Your task to perform on an android device: change the clock display to digital Image 0: 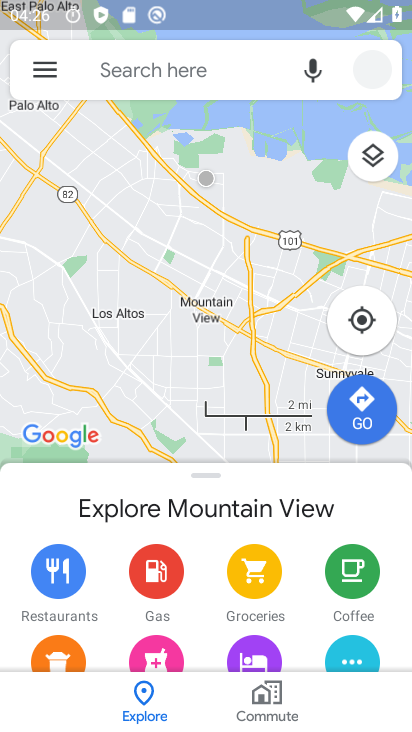
Step 0: press home button
Your task to perform on an android device: change the clock display to digital Image 1: 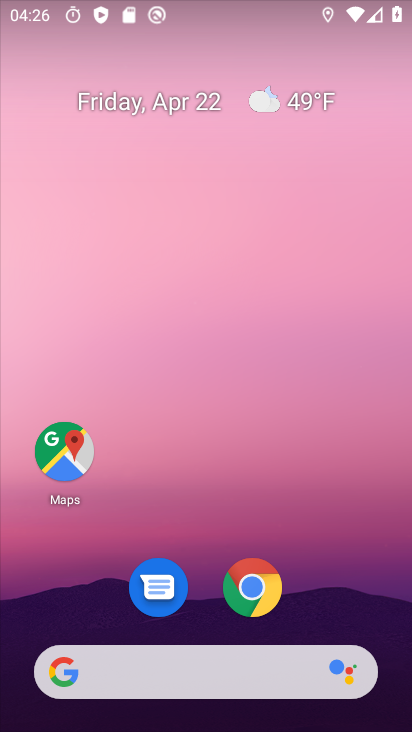
Step 1: drag from (344, 556) to (360, 35)
Your task to perform on an android device: change the clock display to digital Image 2: 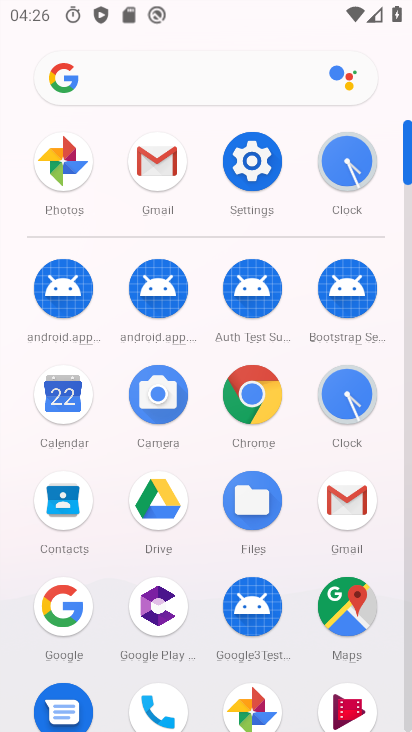
Step 2: click (343, 163)
Your task to perform on an android device: change the clock display to digital Image 3: 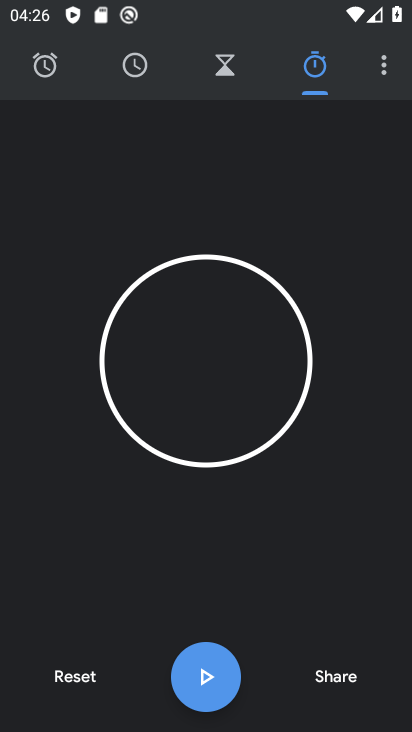
Step 3: click (381, 71)
Your task to perform on an android device: change the clock display to digital Image 4: 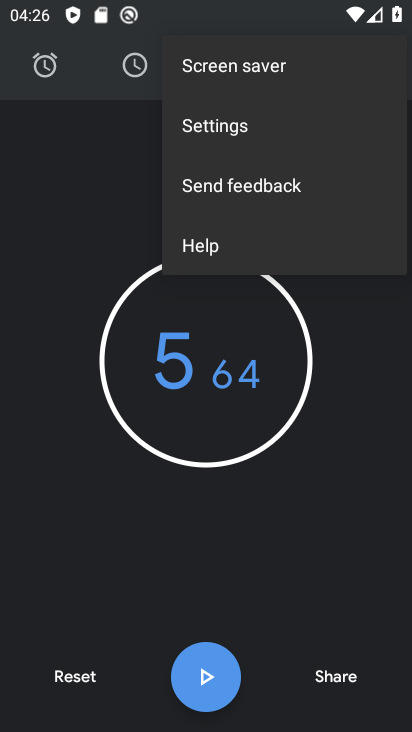
Step 4: click (229, 134)
Your task to perform on an android device: change the clock display to digital Image 5: 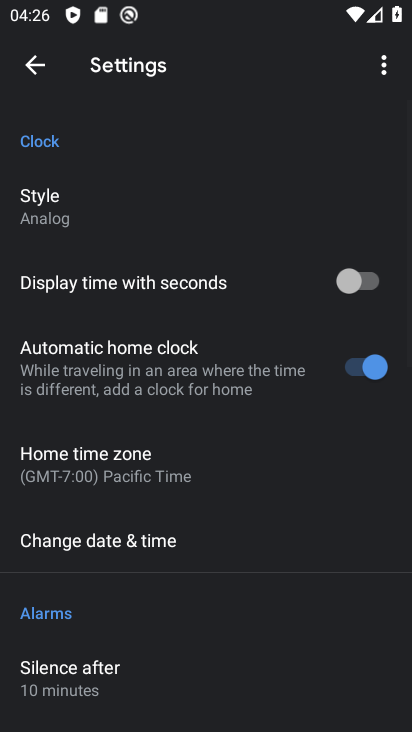
Step 5: click (53, 217)
Your task to perform on an android device: change the clock display to digital Image 6: 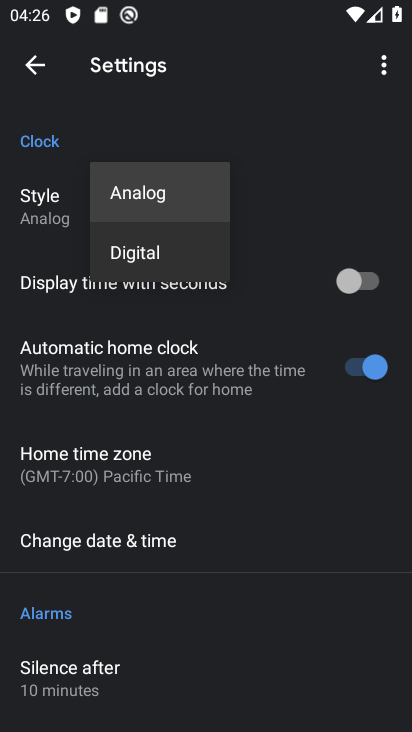
Step 6: click (113, 254)
Your task to perform on an android device: change the clock display to digital Image 7: 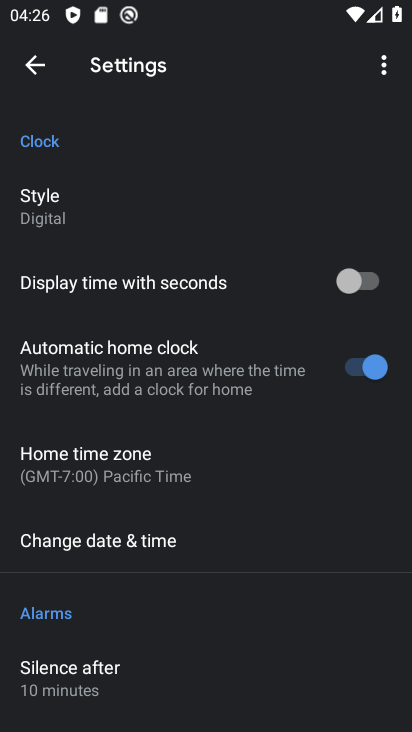
Step 7: task complete